Your task to perform on an android device: Is it going to rain today? Image 0: 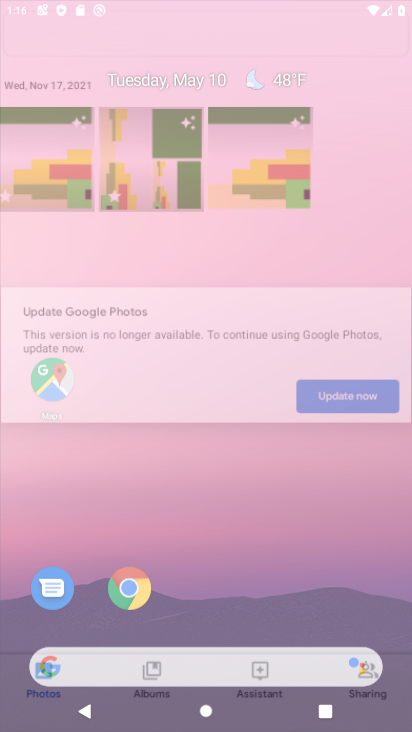
Step 0: drag from (258, 467) to (284, 198)
Your task to perform on an android device: Is it going to rain today? Image 1: 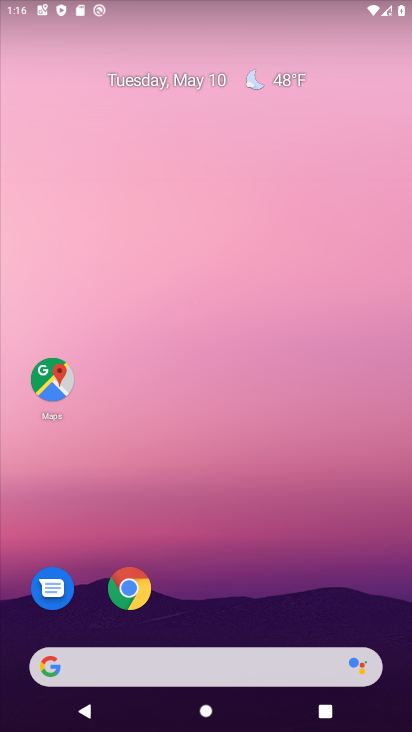
Step 1: drag from (211, 565) to (275, 172)
Your task to perform on an android device: Is it going to rain today? Image 2: 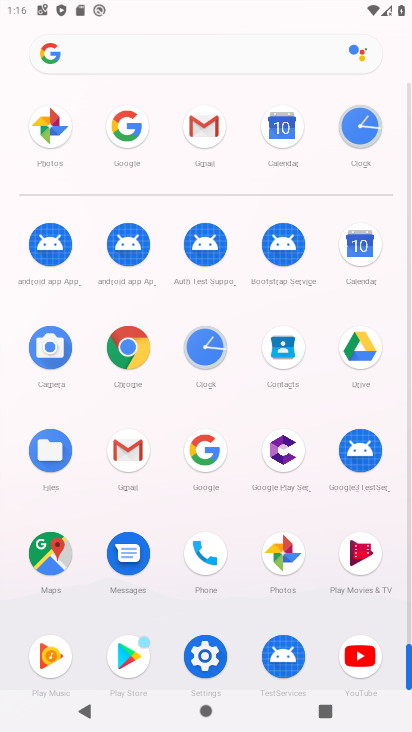
Step 2: click (129, 349)
Your task to perform on an android device: Is it going to rain today? Image 3: 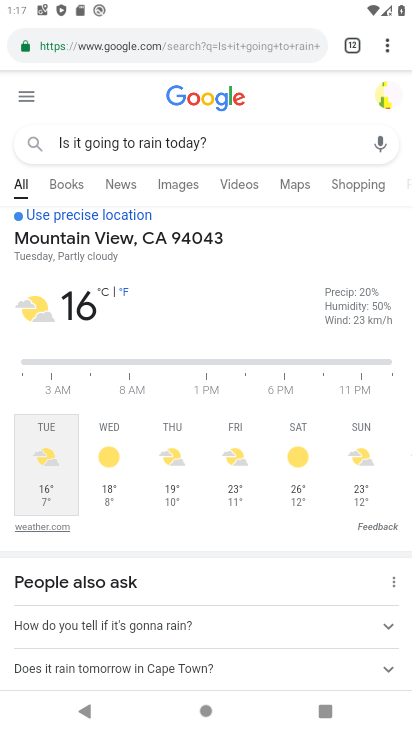
Step 3: task complete